Your task to perform on an android device: install app "LiveIn - Share Your Moment" Image 0: 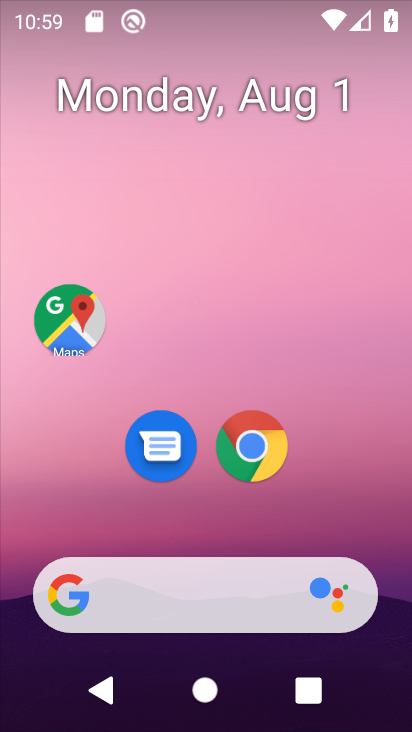
Step 0: drag from (232, 518) to (212, 141)
Your task to perform on an android device: install app "LiveIn - Share Your Moment" Image 1: 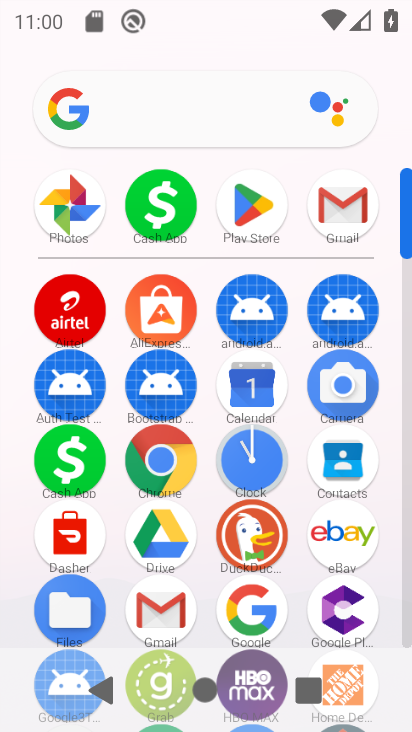
Step 1: click (266, 214)
Your task to perform on an android device: install app "LiveIn - Share Your Moment" Image 2: 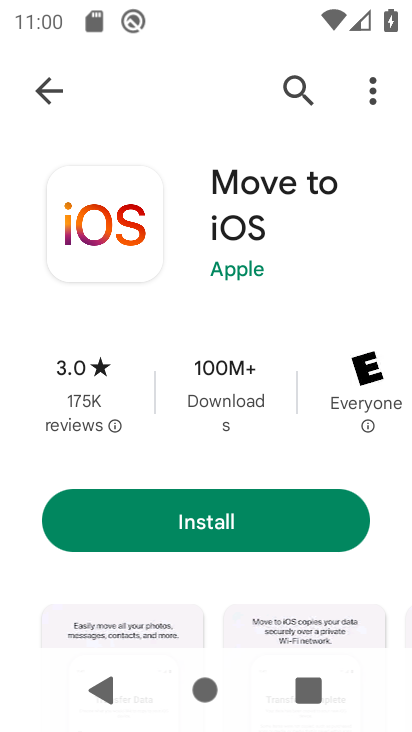
Step 2: click (283, 81)
Your task to perform on an android device: install app "LiveIn - Share Your Moment" Image 3: 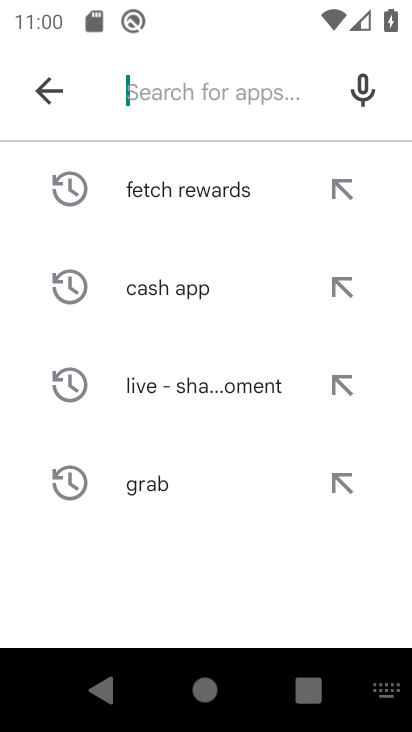
Step 3: type "LiveIn - Share Your Moment"
Your task to perform on an android device: install app "LiveIn - Share Your Moment" Image 4: 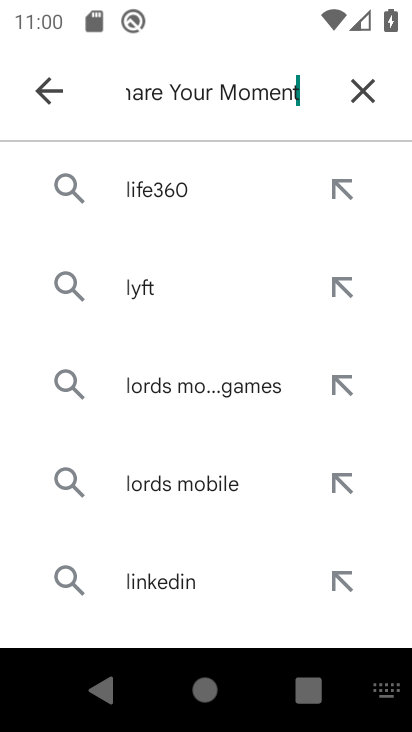
Step 4: type ""
Your task to perform on an android device: install app "LiveIn - Share Your Moment" Image 5: 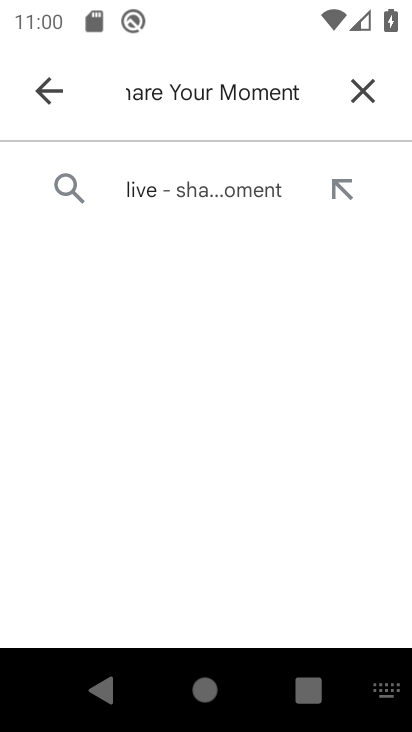
Step 5: click (187, 205)
Your task to perform on an android device: install app "LiveIn - Share Your Moment" Image 6: 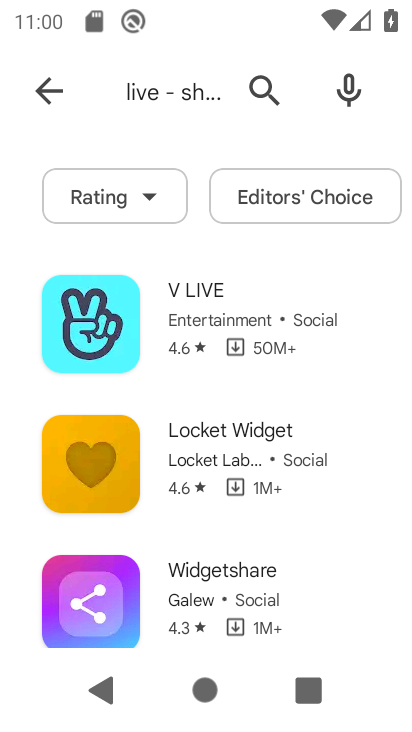
Step 6: task complete